Your task to perform on an android device: toggle data saver in the chrome app Image 0: 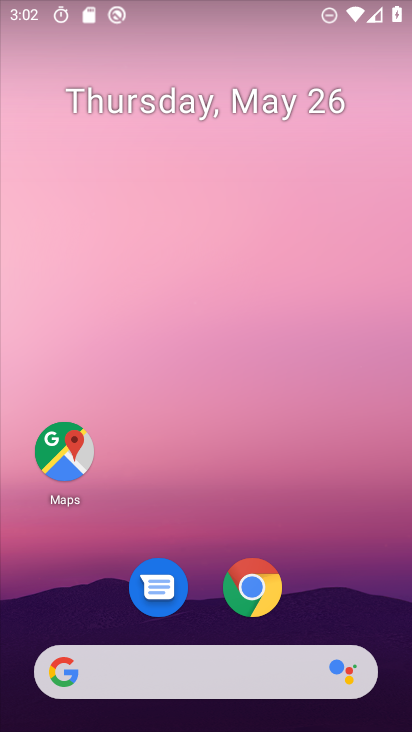
Step 0: click (251, 590)
Your task to perform on an android device: toggle data saver in the chrome app Image 1: 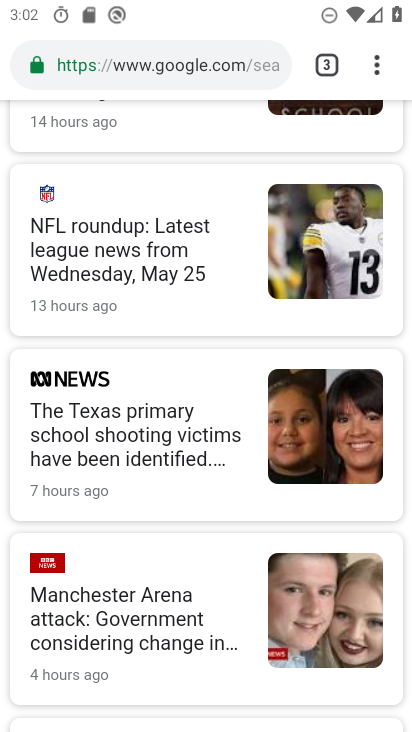
Step 1: drag from (383, 58) to (179, 634)
Your task to perform on an android device: toggle data saver in the chrome app Image 2: 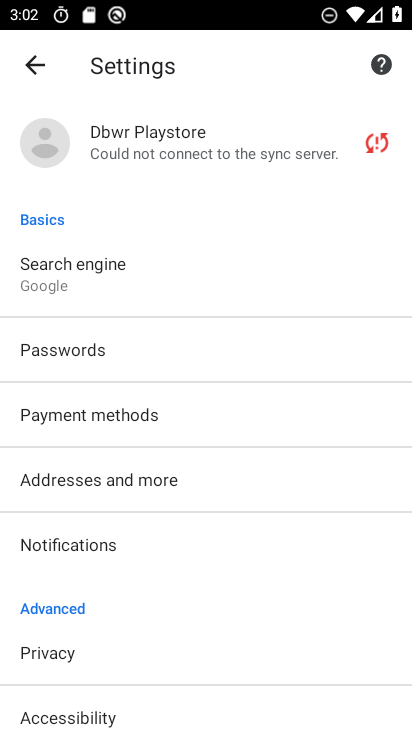
Step 2: drag from (145, 627) to (226, 149)
Your task to perform on an android device: toggle data saver in the chrome app Image 3: 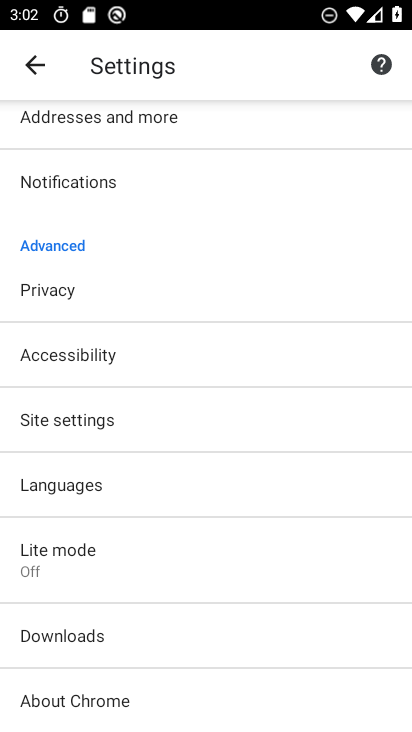
Step 3: click (77, 558)
Your task to perform on an android device: toggle data saver in the chrome app Image 4: 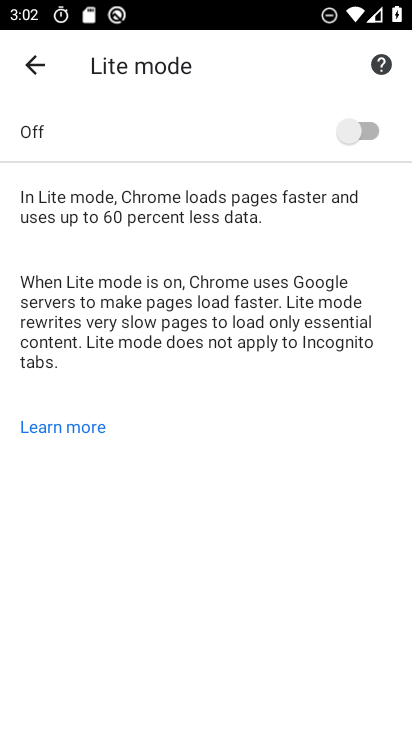
Step 4: click (341, 135)
Your task to perform on an android device: toggle data saver in the chrome app Image 5: 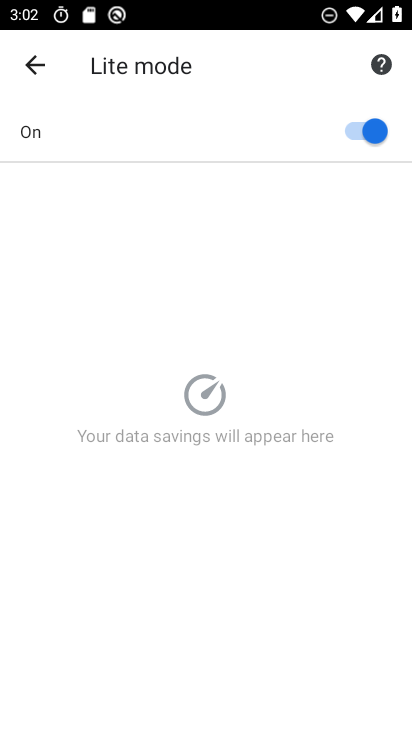
Step 5: task complete